Your task to perform on an android device: Open Amazon Image 0: 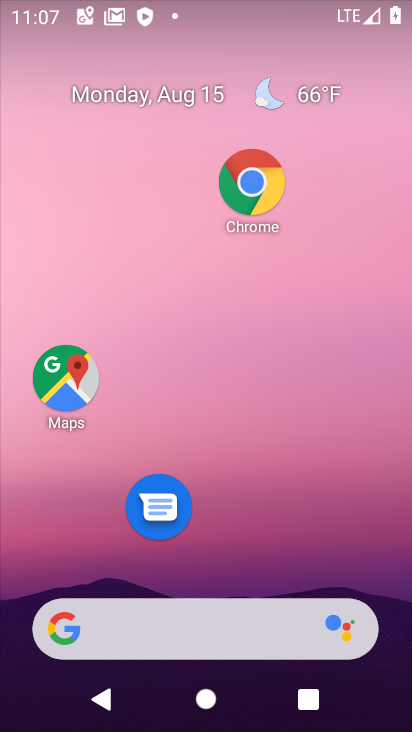
Step 0: click (255, 196)
Your task to perform on an android device: Open Amazon Image 1: 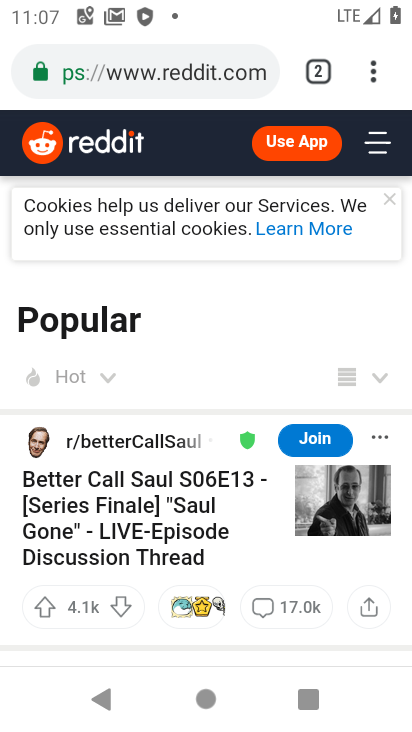
Step 1: click (369, 80)
Your task to perform on an android device: Open Amazon Image 2: 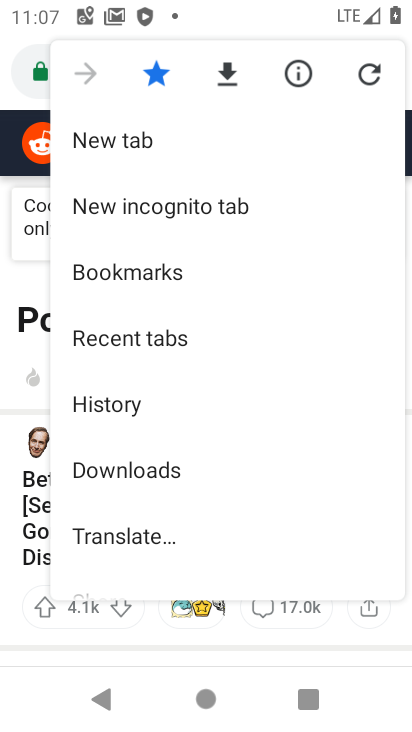
Step 2: click (11, 234)
Your task to perform on an android device: Open Amazon Image 3: 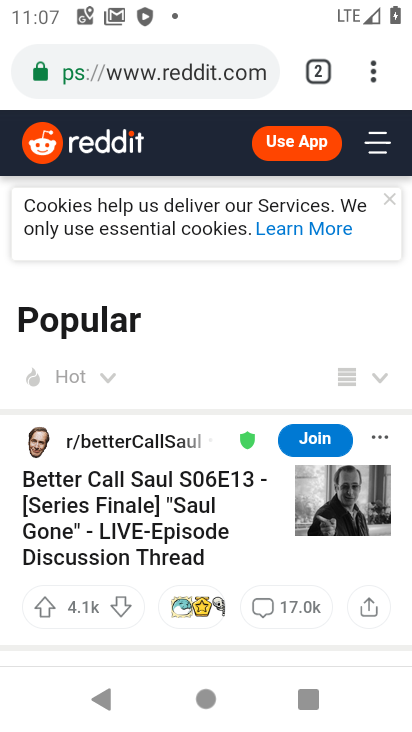
Step 3: click (177, 83)
Your task to perform on an android device: Open Amazon Image 4: 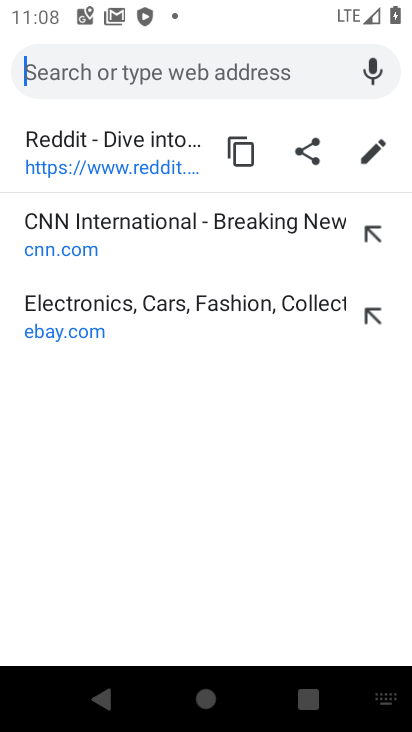
Step 4: type "amazone"
Your task to perform on an android device: Open Amazon Image 5: 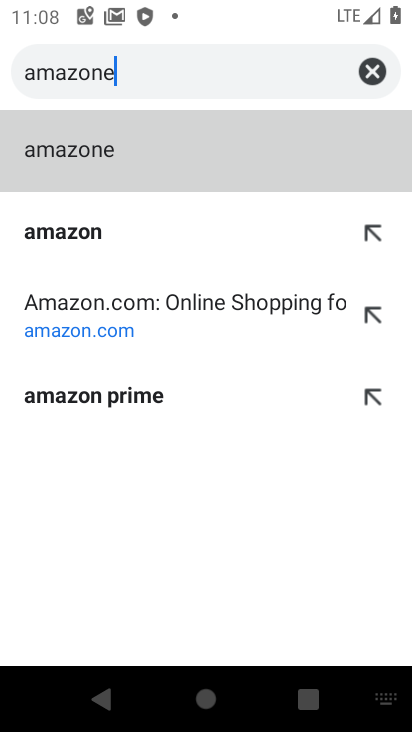
Step 5: click (95, 156)
Your task to perform on an android device: Open Amazon Image 6: 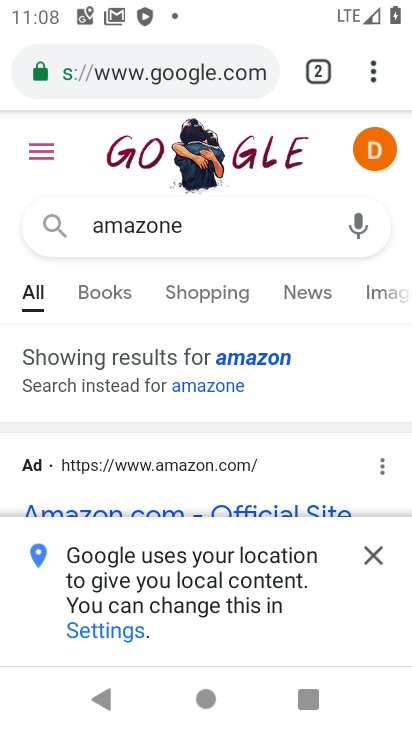
Step 6: click (161, 499)
Your task to perform on an android device: Open Amazon Image 7: 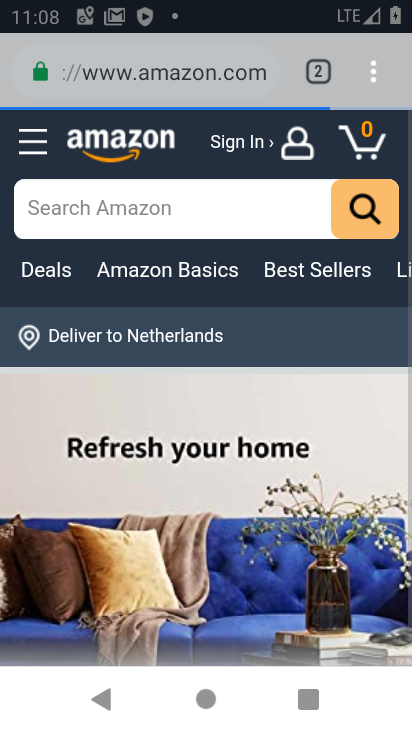
Step 7: task complete